Your task to perform on an android device: Search for seafood restaurants on Google Maps Image 0: 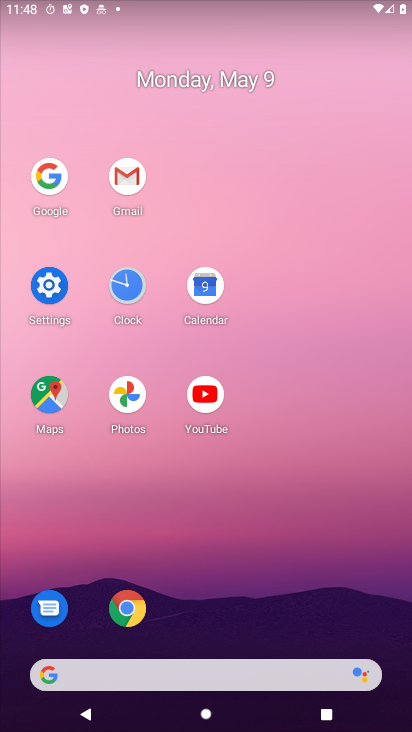
Step 0: click (54, 390)
Your task to perform on an android device: Search for seafood restaurants on Google Maps Image 1: 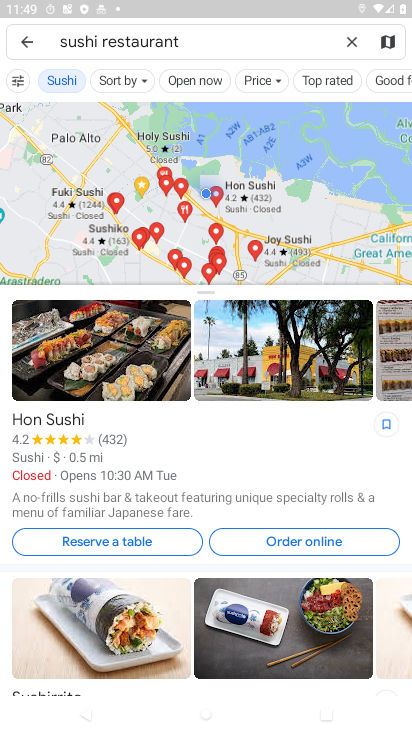
Step 1: click (351, 45)
Your task to perform on an android device: Search for seafood restaurants on Google Maps Image 2: 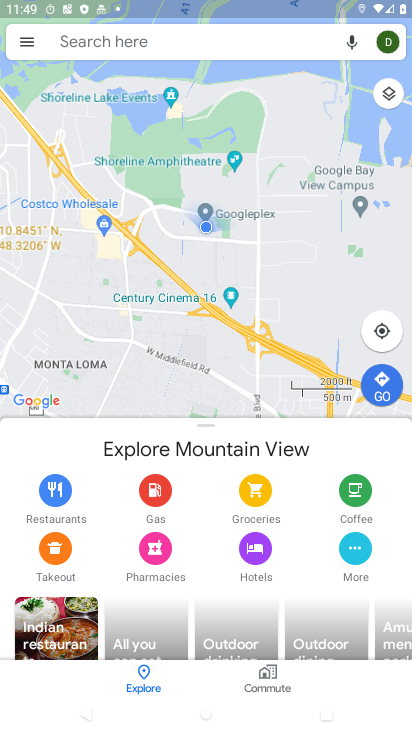
Step 2: click (160, 42)
Your task to perform on an android device: Search for seafood restaurants on Google Maps Image 3: 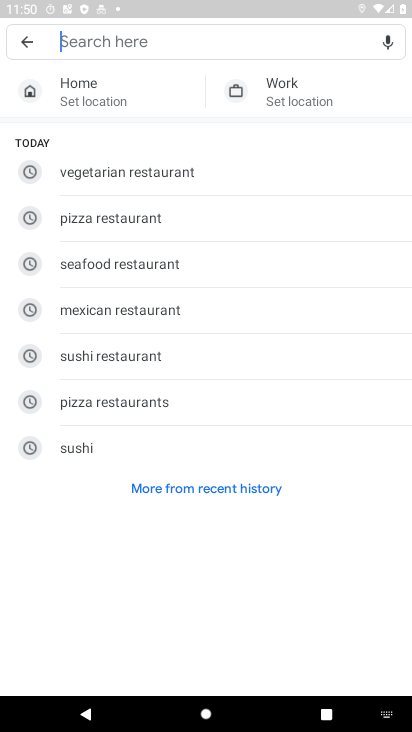
Step 3: click (163, 272)
Your task to perform on an android device: Search for seafood restaurants on Google Maps Image 4: 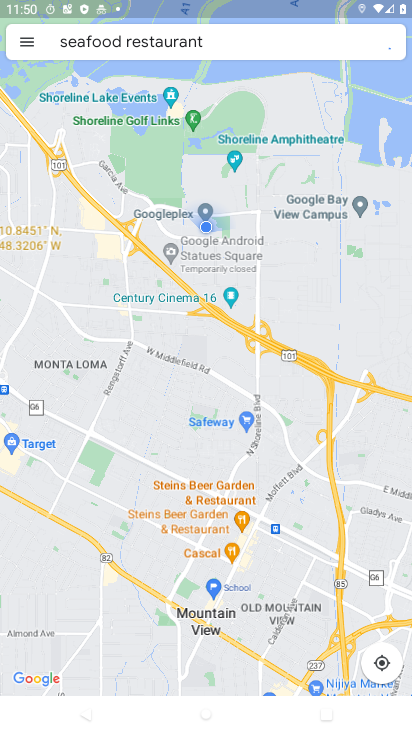
Step 4: task complete